Your task to perform on an android device: Open accessibility settings Image 0: 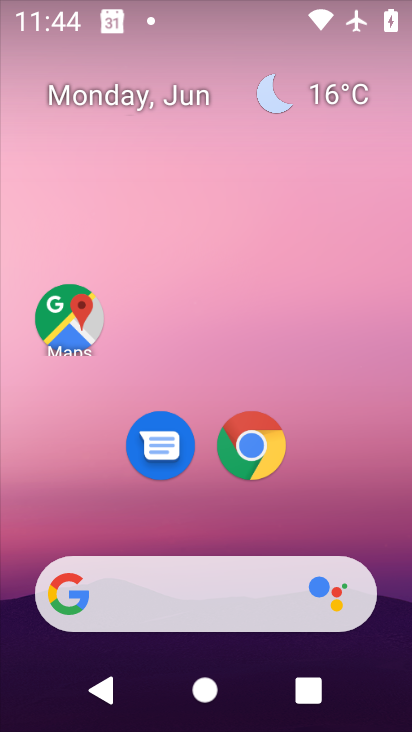
Step 0: drag from (355, 530) to (357, 122)
Your task to perform on an android device: Open accessibility settings Image 1: 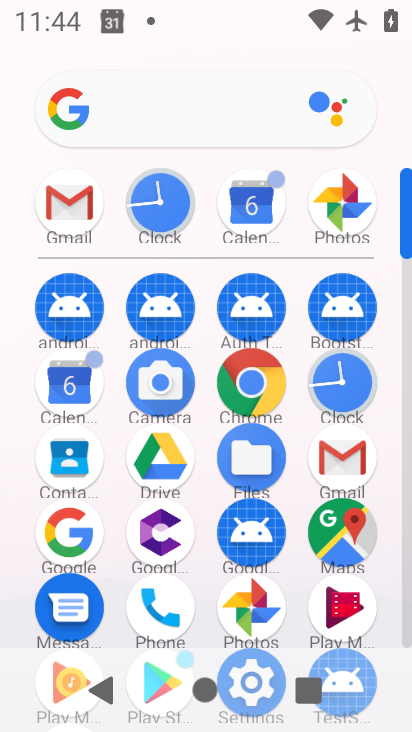
Step 1: drag from (205, 567) to (208, 364)
Your task to perform on an android device: Open accessibility settings Image 2: 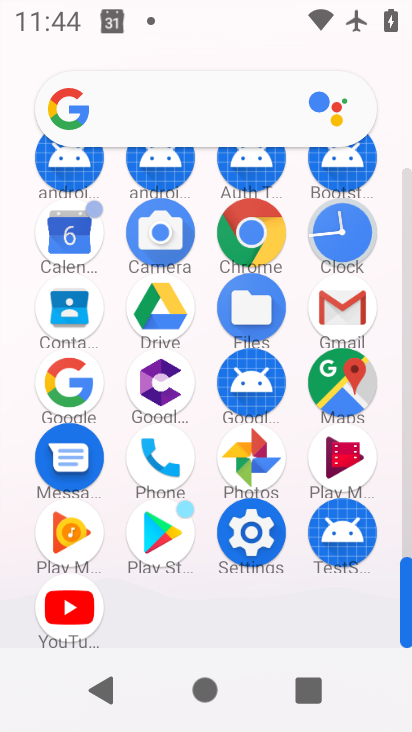
Step 2: click (258, 531)
Your task to perform on an android device: Open accessibility settings Image 3: 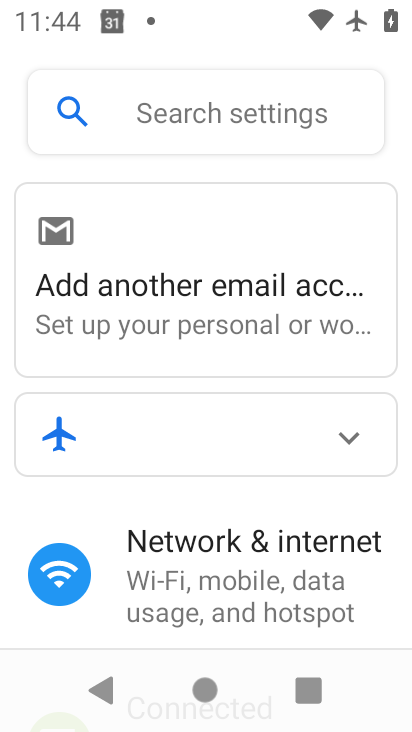
Step 3: drag from (89, 580) to (189, 21)
Your task to perform on an android device: Open accessibility settings Image 4: 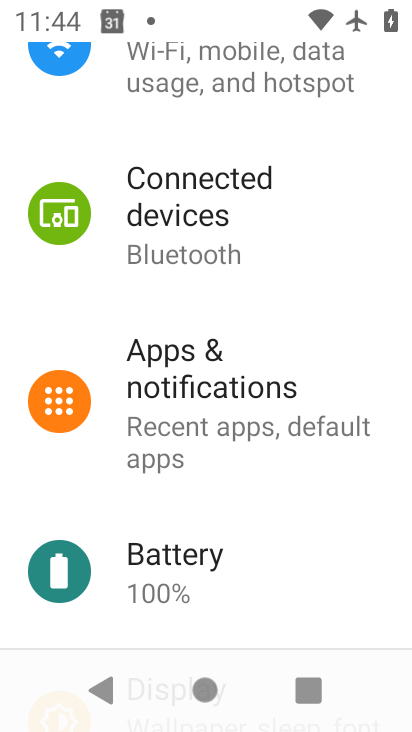
Step 4: drag from (75, 615) to (142, 188)
Your task to perform on an android device: Open accessibility settings Image 5: 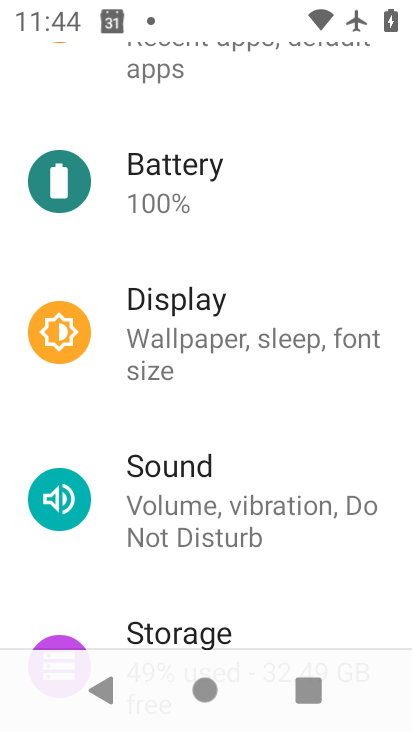
Step 5: drag from (90, 585) to (165, 188)
Your task to perform on an android device: Open accessibility settings Image 6: 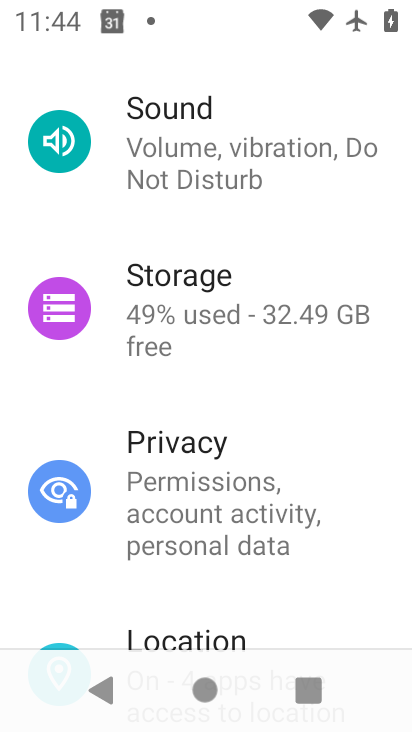
Step 6: drag from (85, 619) to (133, 211)
Your task to perform on an android device: Open accessibility settings Image 7: 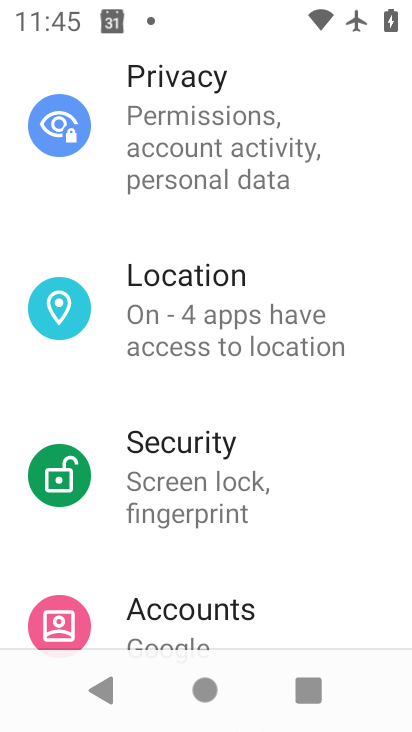
Step 7: drag from (128, 577) to (242, 161)
Your task to perform on an android device: Open accessibility settings Image 8: 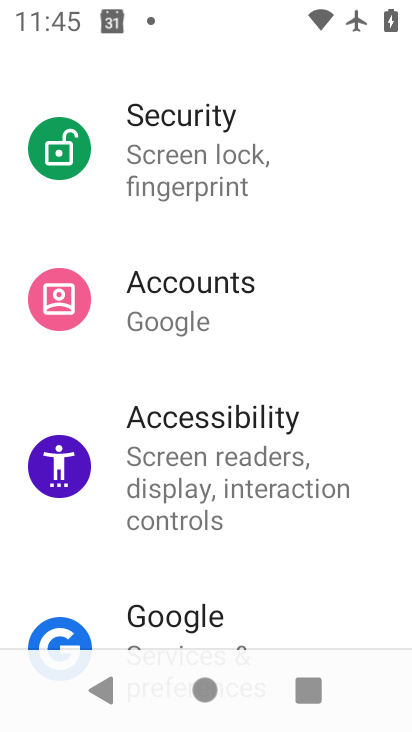
Step 8: click (207, 480)
Your task to perform on an android device: Open accessibility settings Image 9: 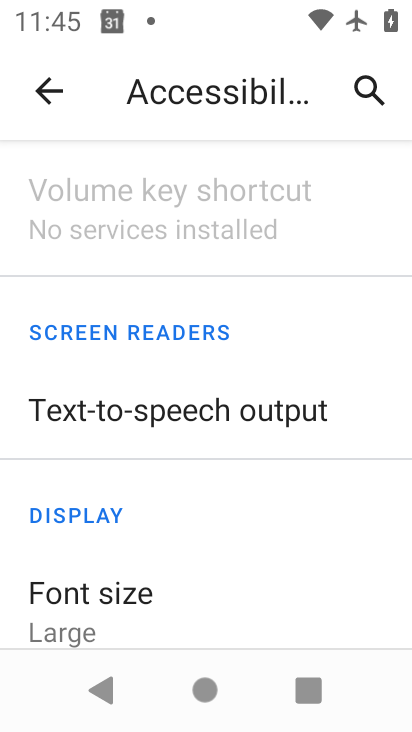
Step 9: task complete